Your task to perform on an android device: What's on my calendar today? Image 0: 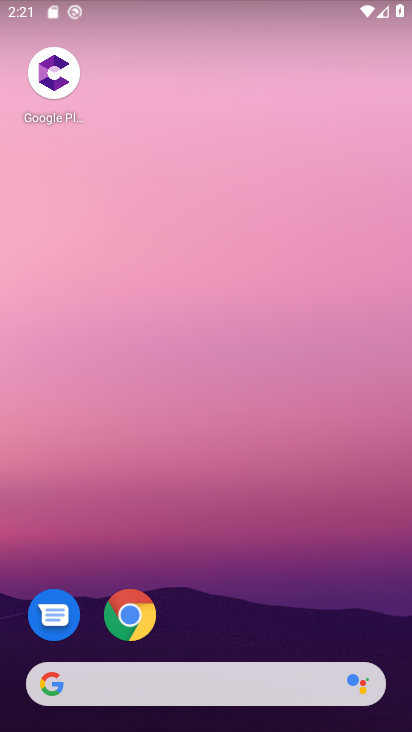
Step 0: drag from (275, 542) to (230, 51)
Your task to perform on an android device: What's on my calendar today? Image 1: 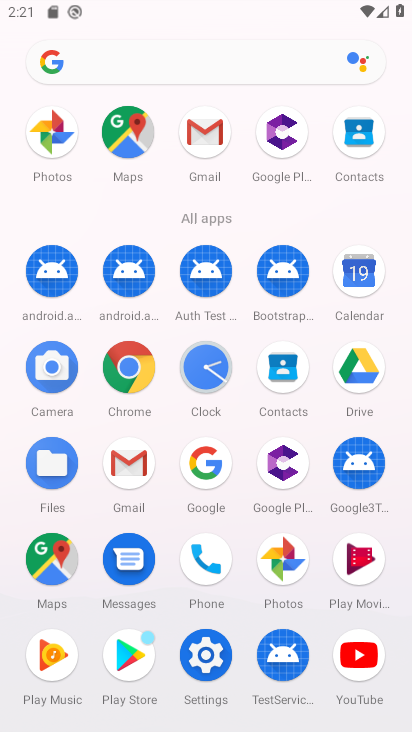
Step 1: drag from (11, 545) to (13, 225)
Your task to perform on an android device: What's on my calendar today? Image 2: 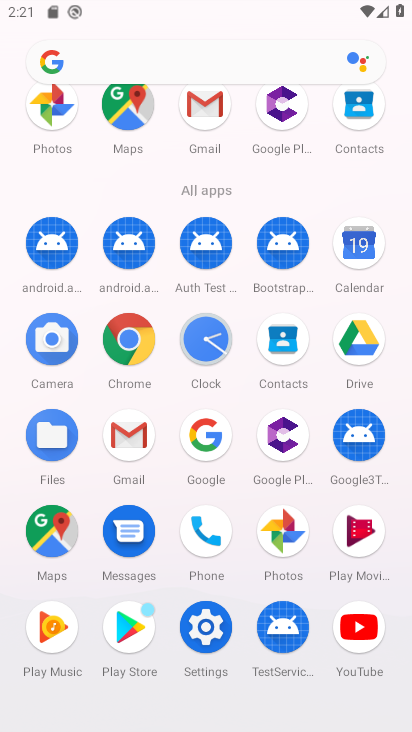
Step 2: click (357, 267)
Your task to perform on an android device: What's on my calendar today? Image 3: 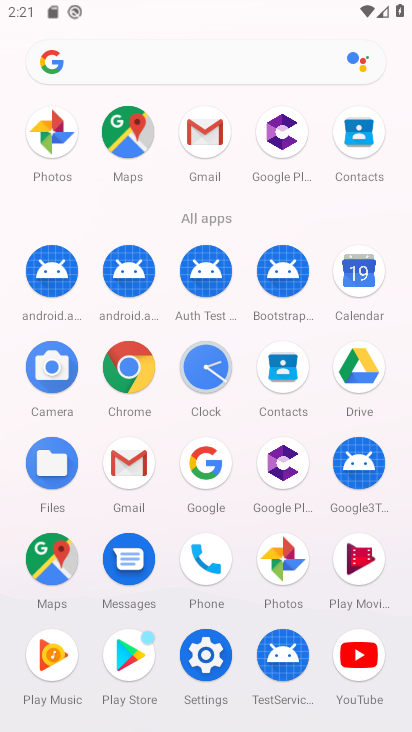
Step 3: click (355, 265)
Your task to perform on an android device: What's on my calendar today? Image 4: 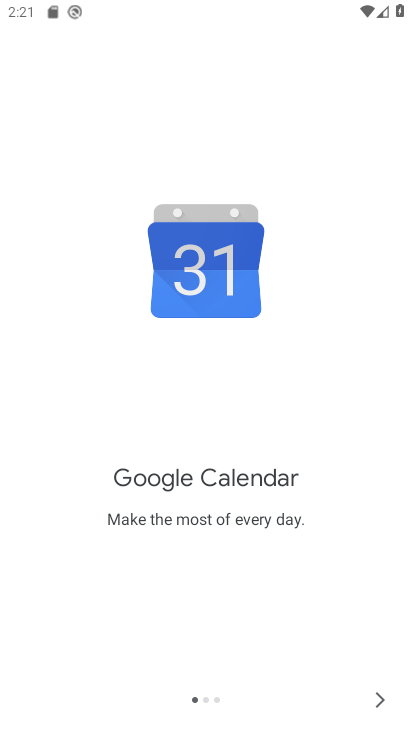
Step 4: click (368, 702)
Your task to perform on an android device: What's on my calendar today? Image 5: 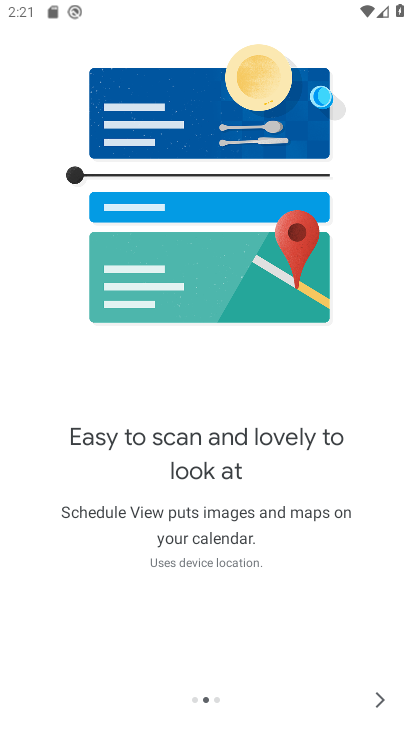
Step 5: click (381, 707)
Your task to perform on an android device: What's on my calendar today? Image 6: 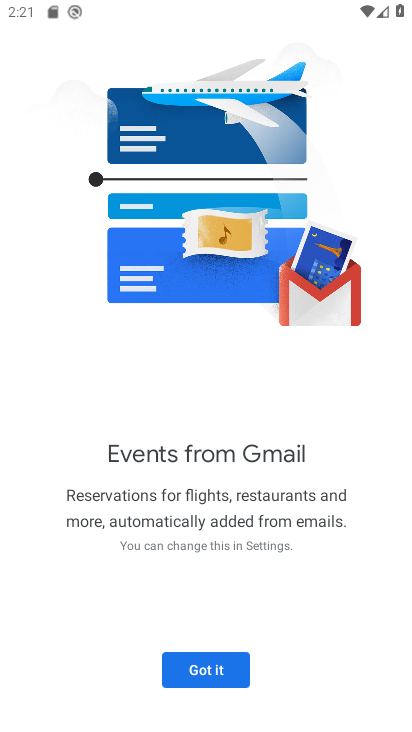
Step 6: click (208, 671)
Your task to perform on an android device: What's on my calendar today? Image 7: 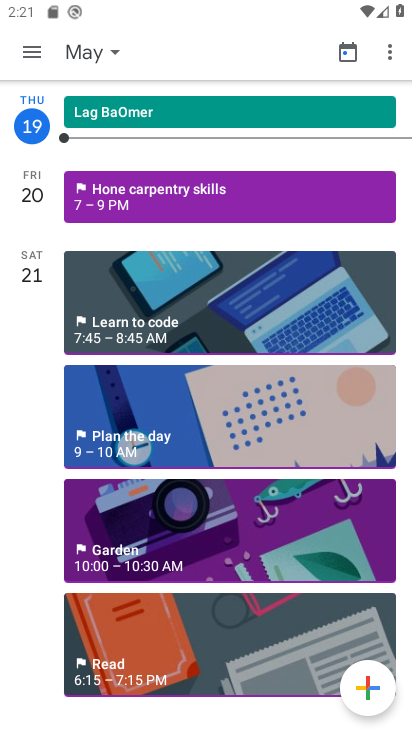
Step 7: click (343, 54)
Your task to perform on an android device: What's on my calendar today? Image 8: 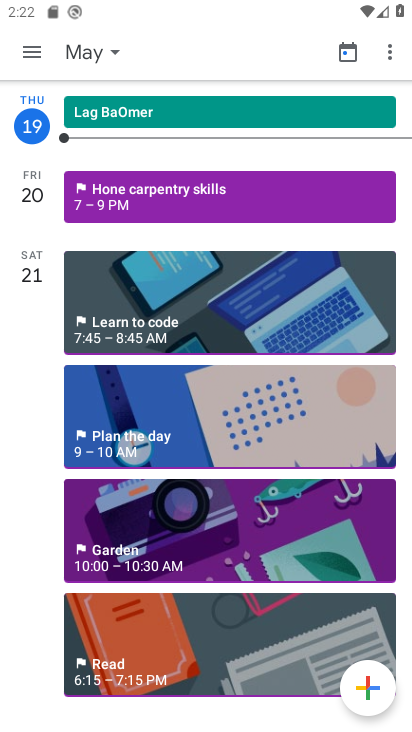
Step 8: task complete